Your task to perform on an android device: What's the weather? Image 0: 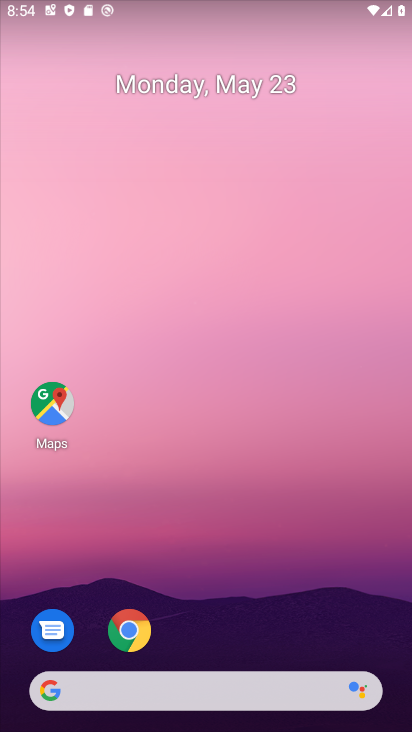
Step 0: drag from (179, 665) to (325, 133)
Your task to perform on an android device: What's the weather? Image 1: 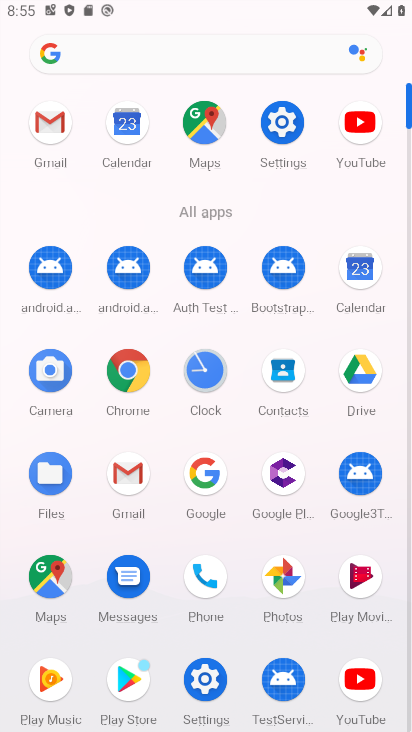
Step 1: click (198, 479)
Your task to perform on an android device: What's the weather? Image 2: 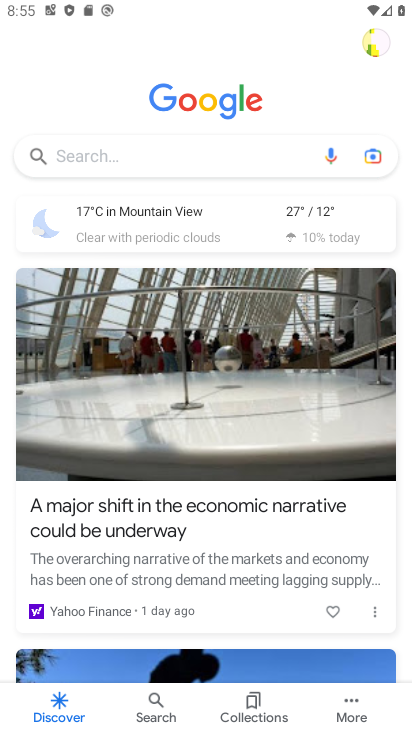
Step 2: click (161, 223)
Your task to perform on an android device: What's the weather? Image 3: 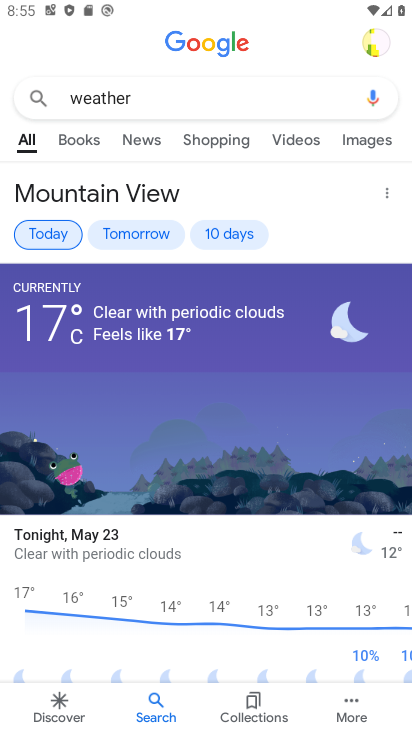
Step 3: task complete